Your task to perform on an android device: change keyboard looks Image 0: 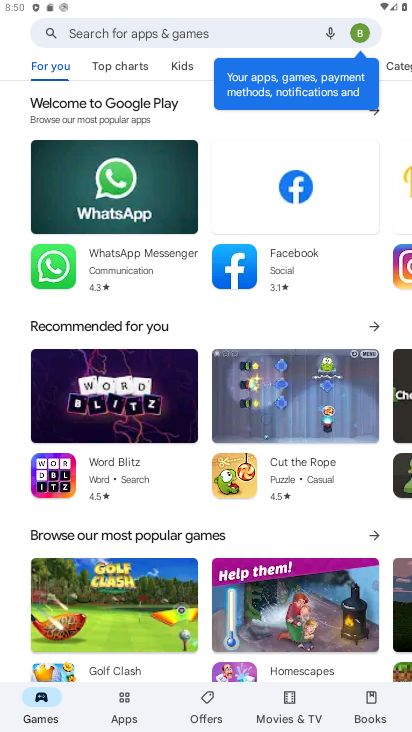
Step 0: press home button
Your task to perform on an android device: change keyboard looks Image 1: 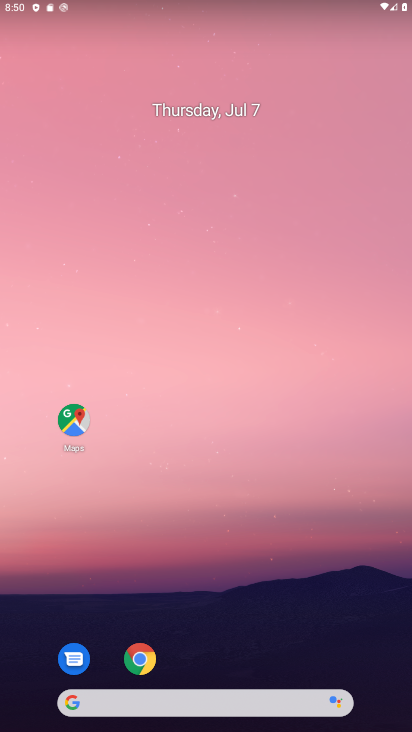
Step 1: drag from (216, 228) to (221, 7)
Your task to perform on an android device: change keyboard looks Image 2: 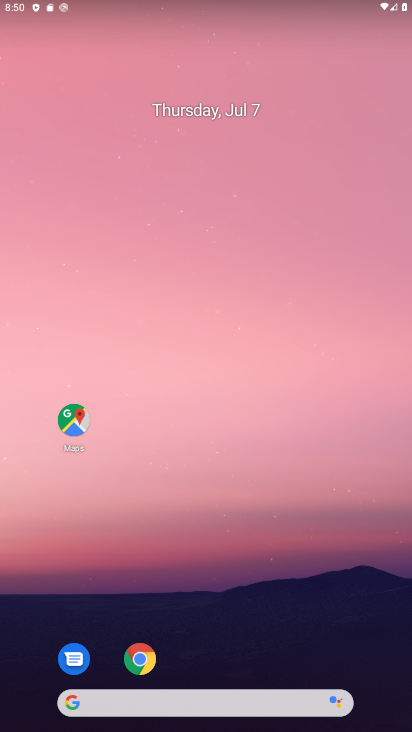
Step 2: drag from (219, 599) to (256, 30)
Your task to perform on an android device: change keyboard looks Image 3: 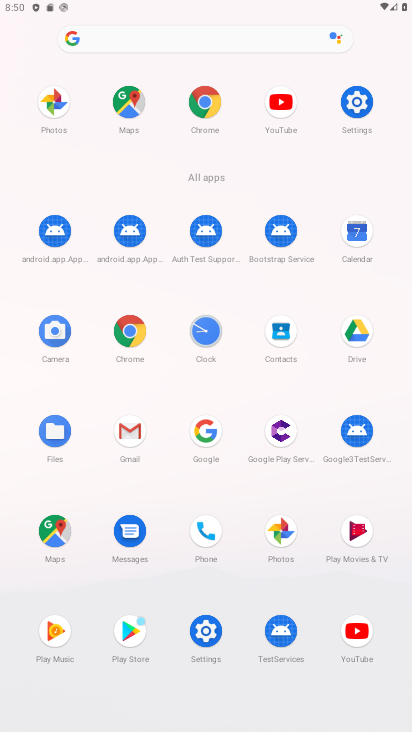
Step 3: click (368, 112)
Your task to perform on an android device: change keyboard looks Image 4: 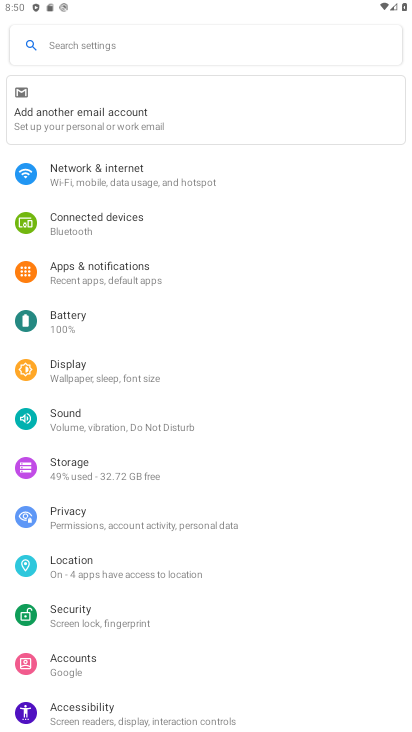
Step 4: drag from (179, 626) to (189, 104)
Your task to perform on an android device: change keyboard looks Image 5: 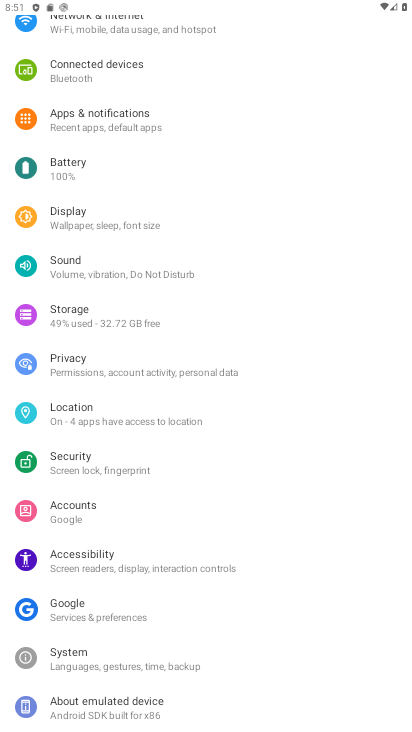
Step 5: click (84, 652)
Your task to perform on an android device: change keyboard looks Image 6: 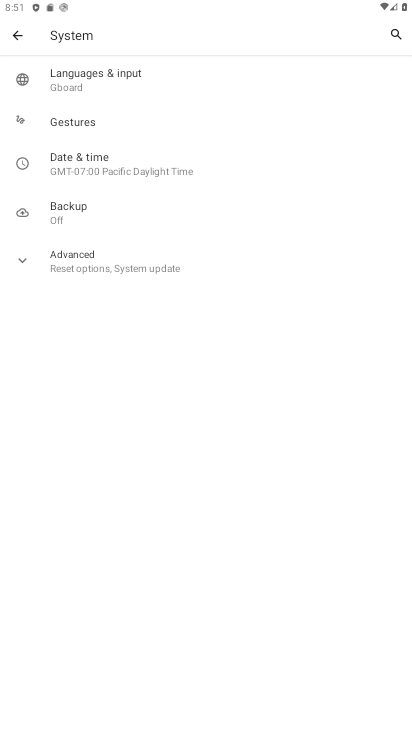
Step 6: click (111, 81)
Your task to perform on an android device: change keyboard looks Image 7: 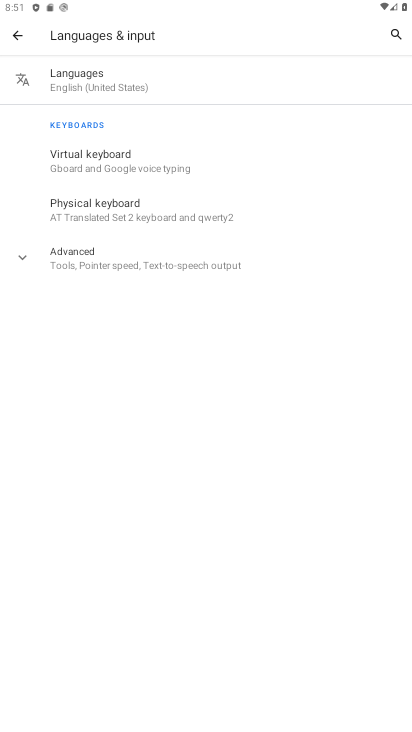
Step 7: click (138, 164)
Your task to perform on an android device: change keyboard looks Image 8: 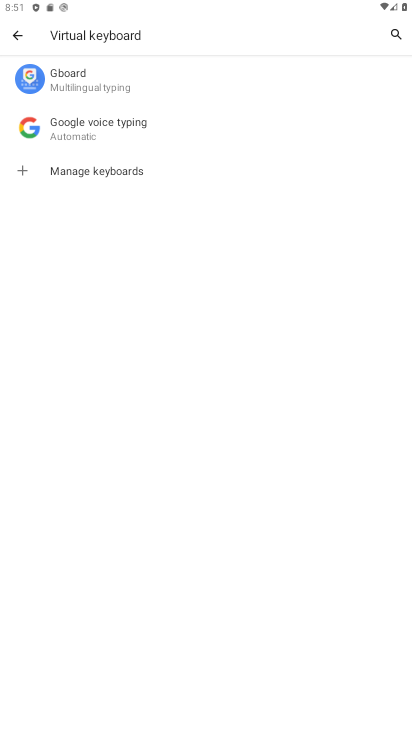
Step 8: click (115, 81)
Your task to perform on an android device: change keyboard looks Image 9: 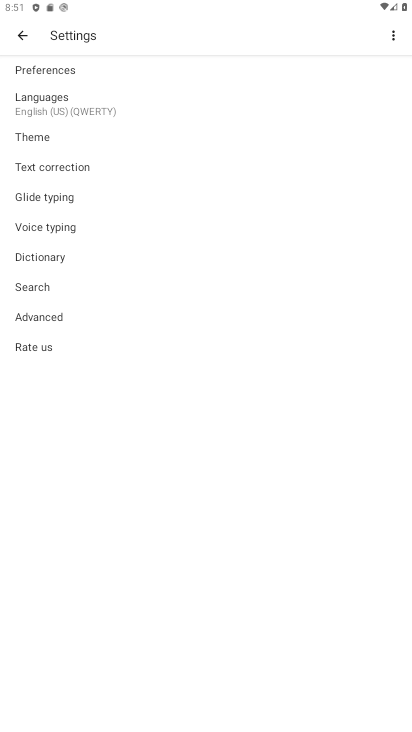
Step 9: click (52, 142)
Your task to perform on an android device: change keyboard looks Image 10: 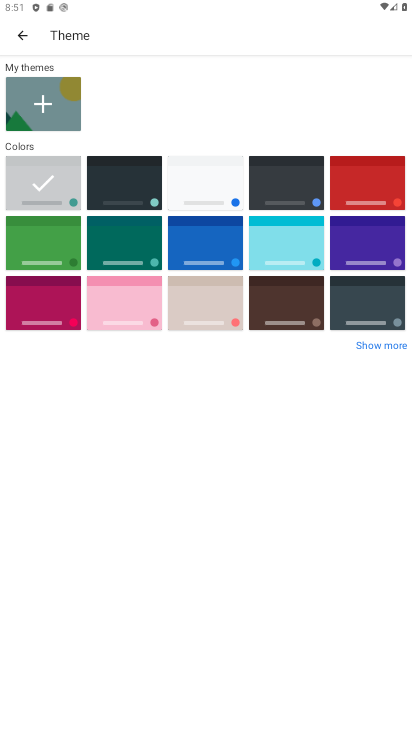
Step 10: click (120, 183)
Your task to perform on an android device: change keyboard looks Image 11: 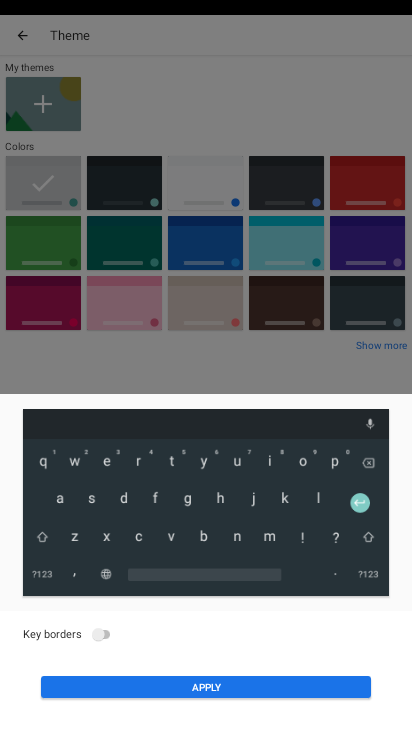
Step 11: click (201, 687)
Your task to perform on an android device: change keyboard looks Image 12: 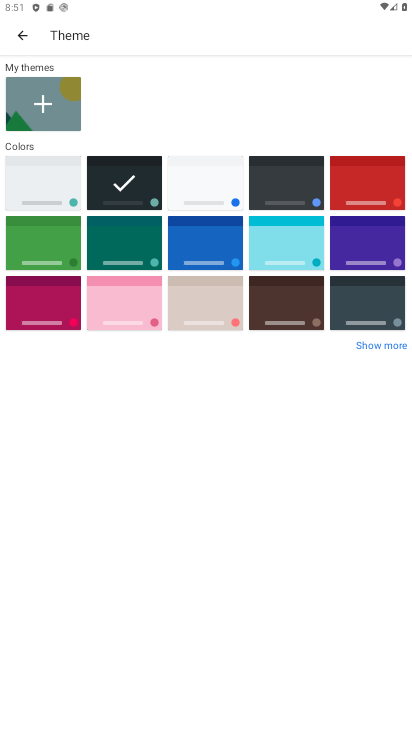
Step 12: task complete